Your task to perform on an android device: turn off translation in the chrome app Image 0: 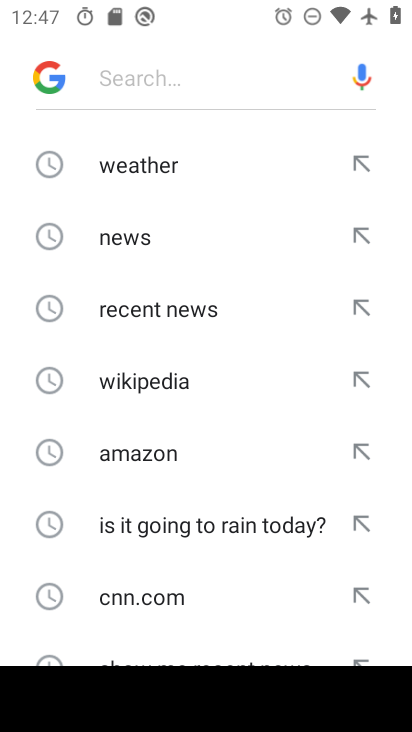
Step 0: press home button
Your task to perform on an android device: turn off translation in the chrome app Image 1: 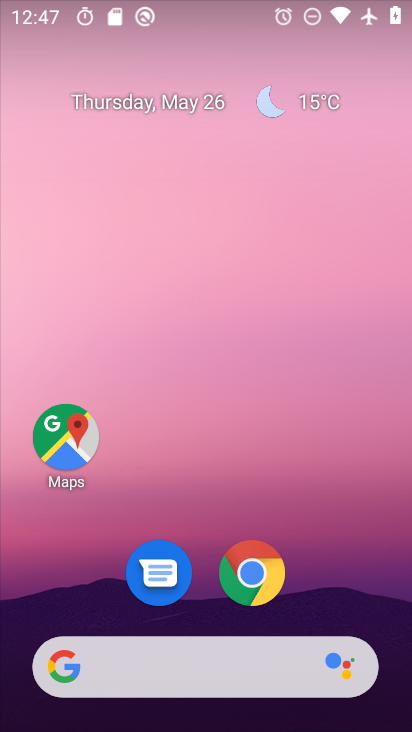
Step 1: click (258, 576)
Your task to perform on an android device: turn off translation in the chrome app Image 2: 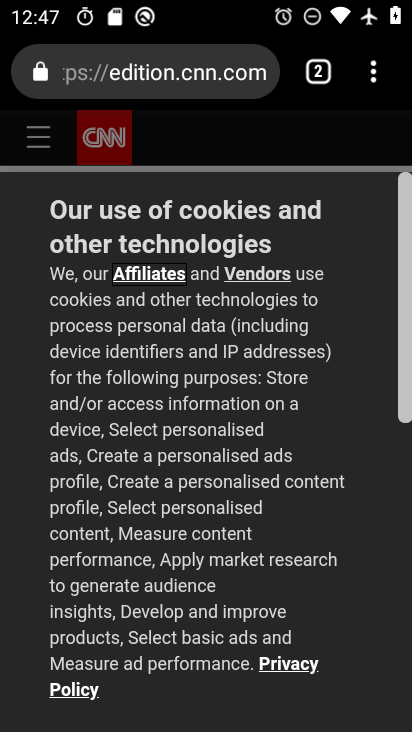
Step 2: click (373, 74)
Your task to perform on an android device: turn off translation in the chrome app Image 3: 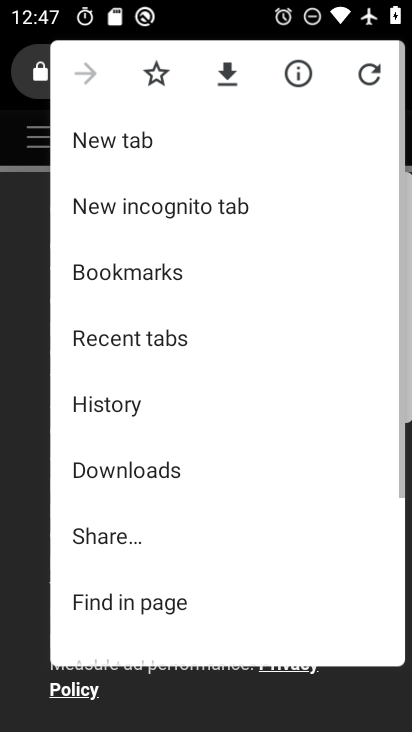
Step 3: drag from (251, 621) to (242, 71)
Your task to perform on an android device: turn off translation in the chrome app Image 4: 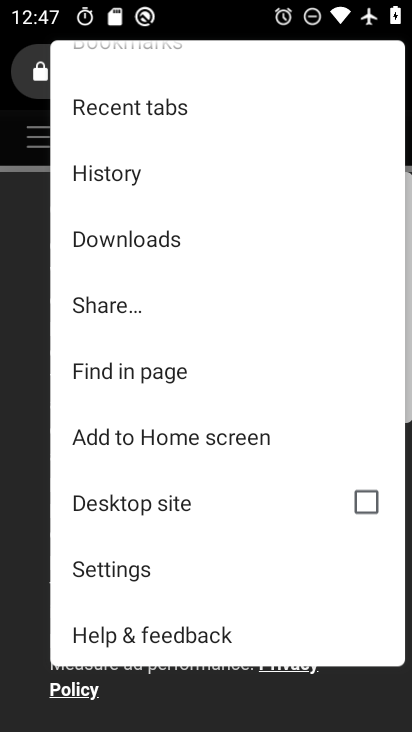
Step 4: click (111, 570)
Your task to perform on an android device: turn off translation in the chrome app Image 5: 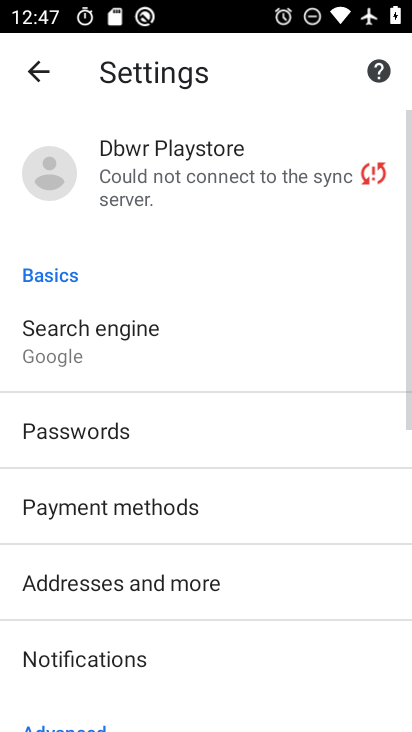
Step 5: drag from (217, 632) to (231, 171)
Your task to perform on an android device: turn off translation in the chrome app Image 6: 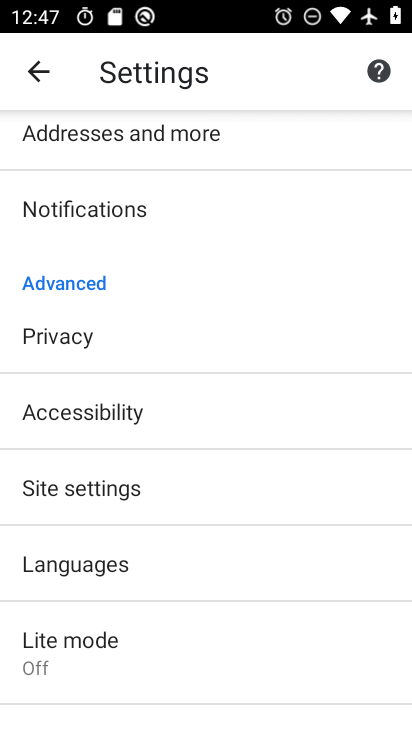
Step 6: click (91, 573)
Your task to perform on an android device: turn off translation in the chrome app Image 7: 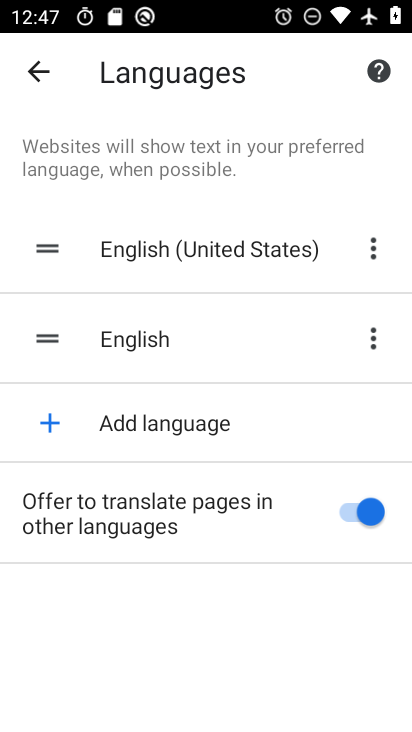
Step 7: click (363, 508)
Your task to perform on an android device: turn off translation in the chrome app Image 8: 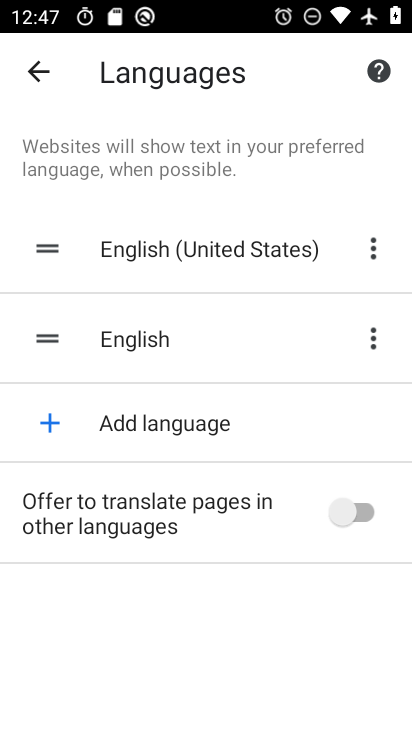
Step 8: task complete